Your task to perform on an android device: Go to Amazon Image 0: 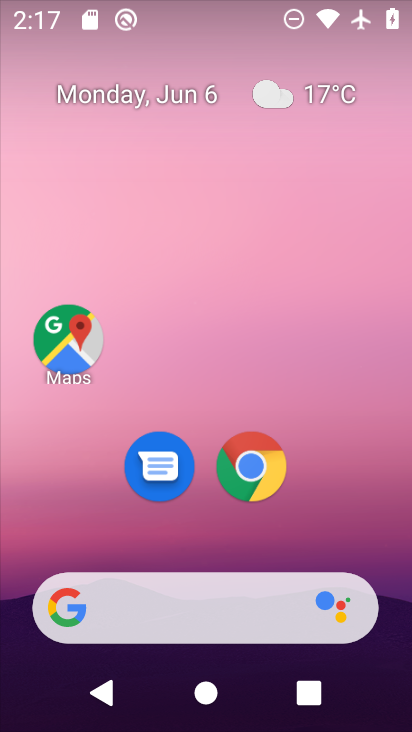
Step 0: click (199, 610)
Your task to perform on an android device: Go to Amazon Image 1: 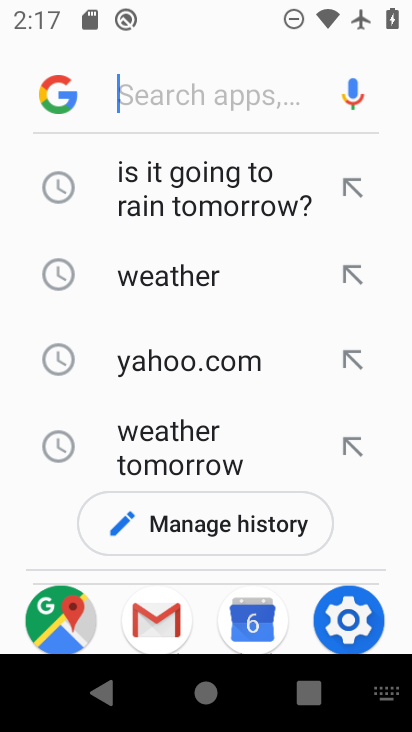
Step 1: type "Amazon"
Your task to perform on an android device: Go to Amazon Image 2: 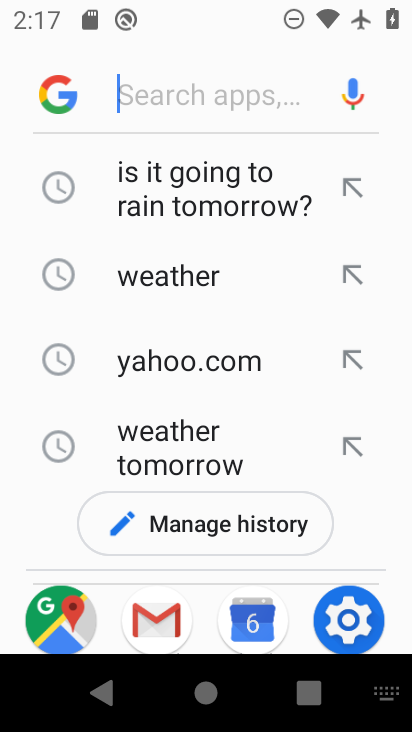
Step 2: click (177, 90)
Your task to perform on an android device: Go to Amazon Image 3: 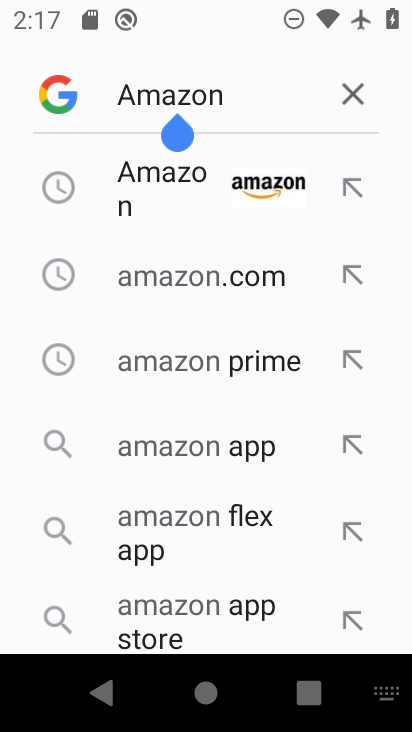
Step 3: click (152, 183)
Your task to perform on an android device: Go to Amazon Image 4: 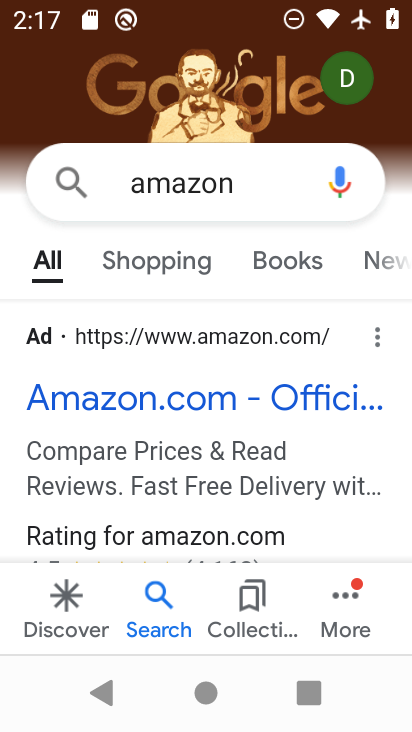
Step 4: drag from (372, 284) to (375, 106)
Your task to perform on an android device: Go to Amazon Image 5: 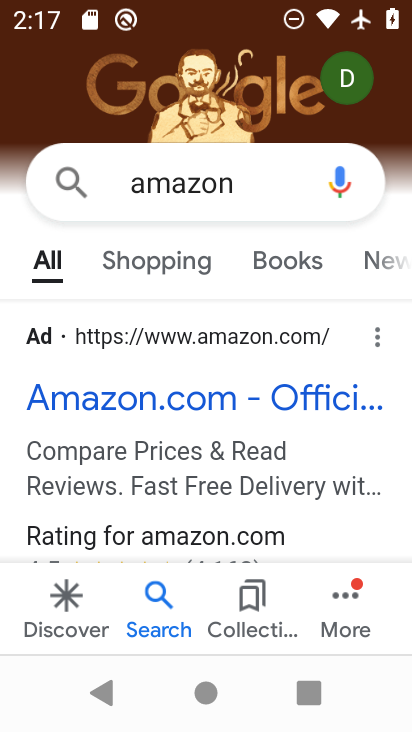
Step 5: drag from (328, 536) to (304, 104)
Your task to perform on an android device: Go to Amazon Image 6: 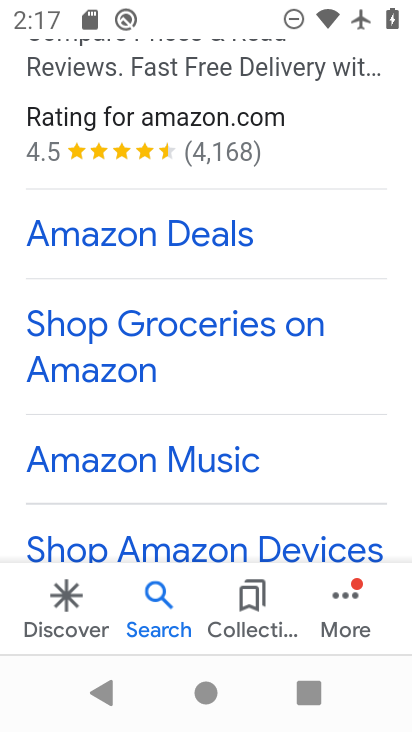
Step 6: drag from (358, 511) to (346, 145)
Your task to perform on an android device: Go to Amazon Image 7: 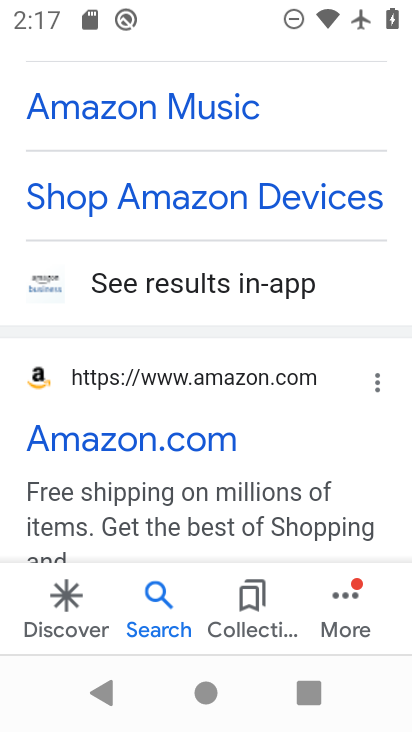
Step 7: click (197, 444)
Your task to perform on an android device: Go to Amazon Image 8: 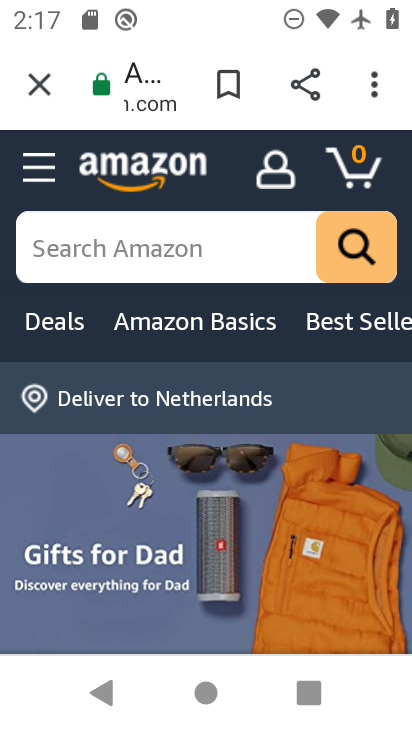
Step 8: task complete